Your task to perform on an android device: Is it going to rain this weekend? Image 0: 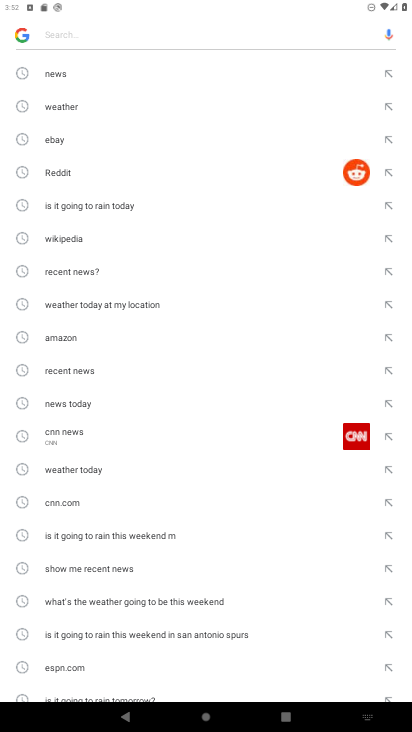
Step 0: click (35, 118)
Your task to perform on an android device: Is it going to rain this weekend? Image 1: 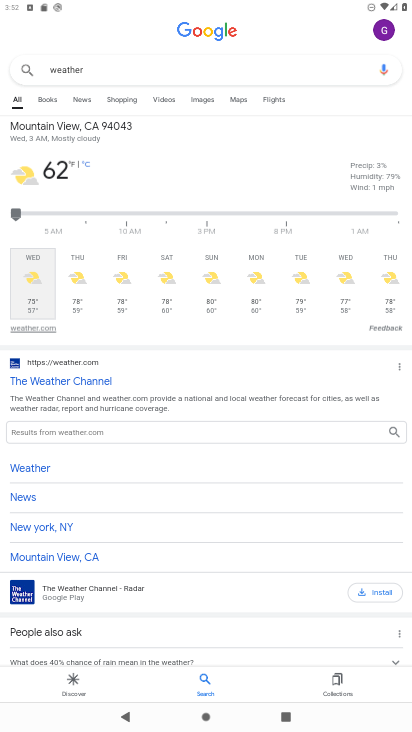
Step 1: click (179, 311)
Your task to perform on an android device: Is it going to rain this weekend? Image 2: 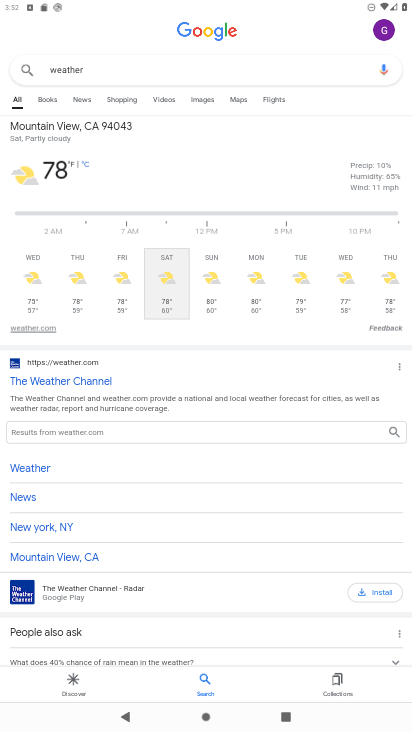
Step 2: task complete